Your task to perform on an android device: check storage Image 0: 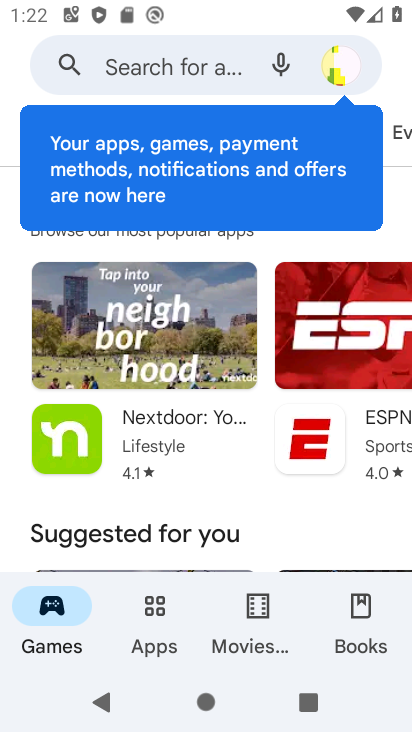
Step 0: press home button
Your task to perform on an android device: check storage Image 1: 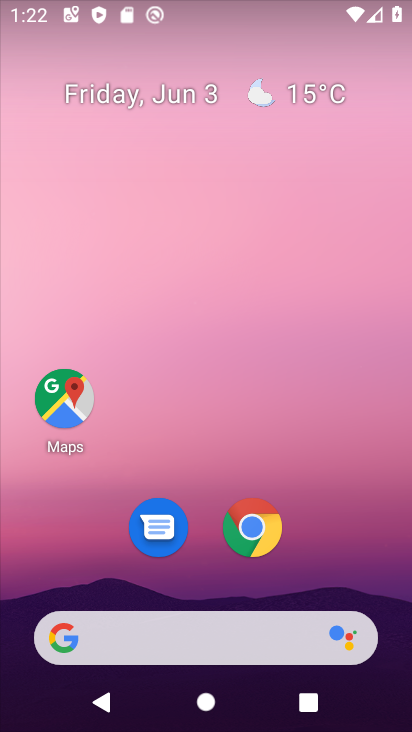
Step 1: drag from (331, 584) to (272, 207)
Your task to perform on an android device: check storage Image 2: 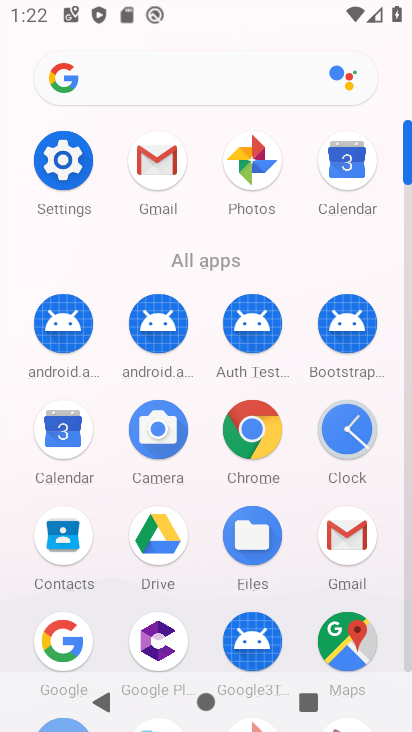
Step 2: click (67, 164)
Your task to perform on an android device: check storage Image 3: 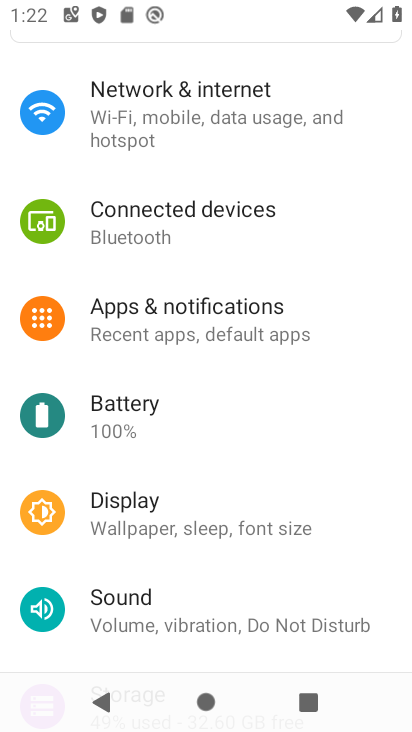
Step 3: drag from (216, 567) to (165, 345)
Your task to perform on an android device: check storage Image 4: 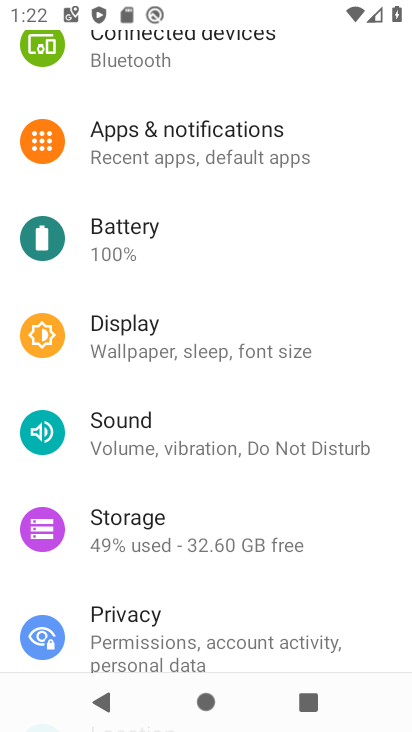
Step 4: click (177, 529)
Your task to perform on an android device: check storage Image 5: 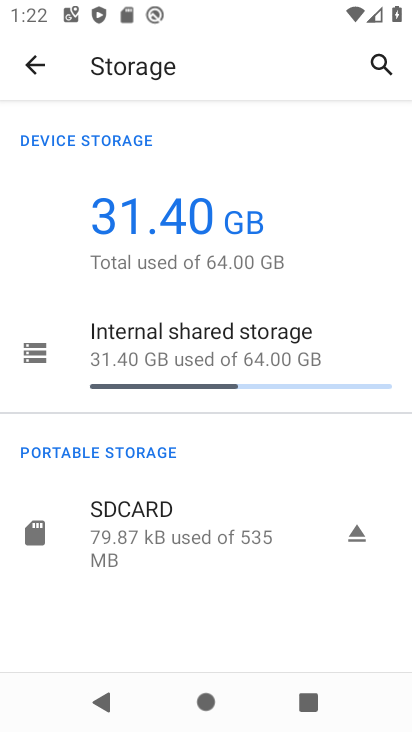
Step 5: click (358, 349)
Your task to perform on an android device: check storage Image 6: 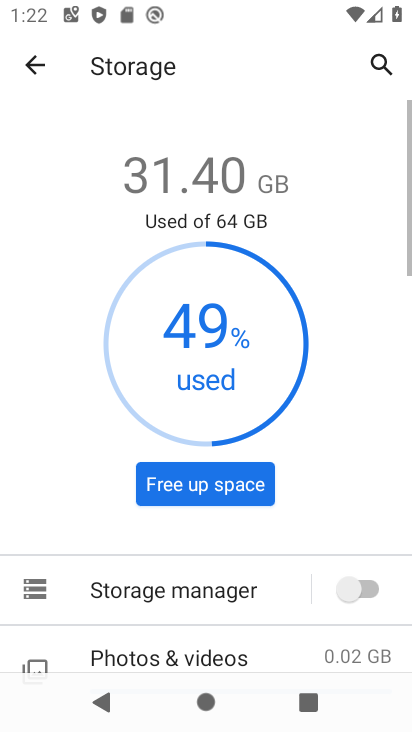
Step 6: task complete